Your task to perform on an android device: Play the last video I watched on Youtube Image 0: 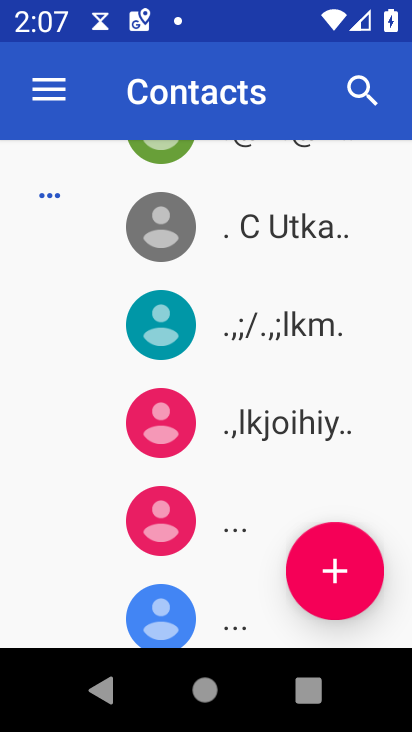
Step 0: press home button
Your task to perform on an android device: Play the last video I watched on Youtube Image 1: 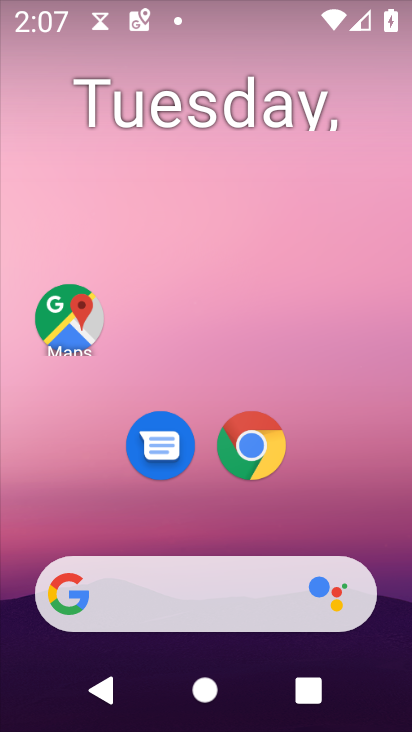
Step 1: drag from (206, 609) to (340, 142)
Your task to perform on an android device: Play the last video I watched on Youtube Image 2: 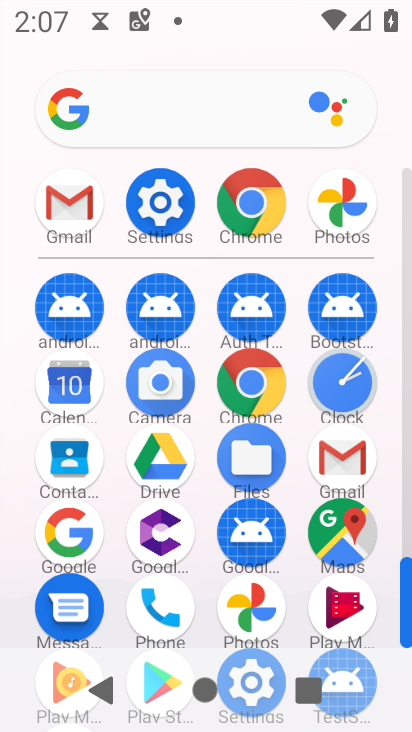
Step 2: drag from (314, 618) to (324, 285)
Your task to perform on an android device: Play the last video I watched on Youtube Image 3: 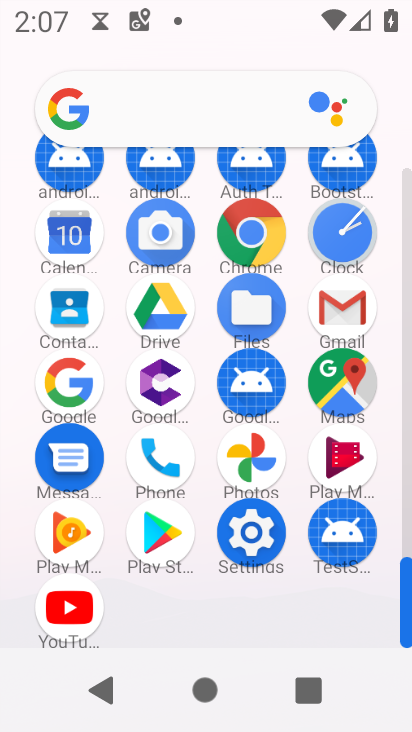
Step 3: click (80, 609)
Your task to perform on an android device: Play the last video I watched on Youtube Image 4: 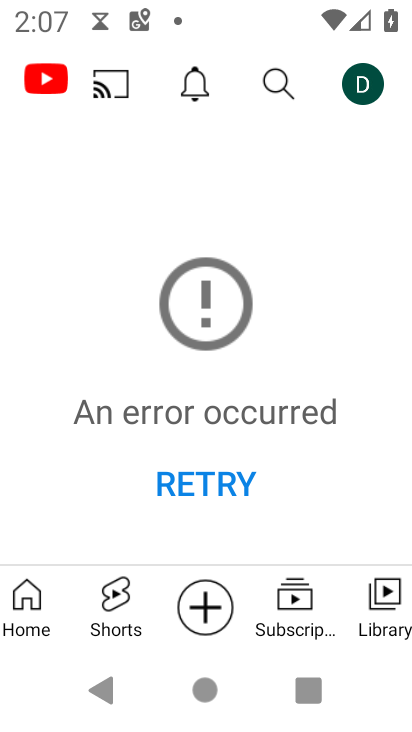
Step 4: click (390, 613)
Your task to perform on an android device: Play the last video I watched on Youtube Image 5: 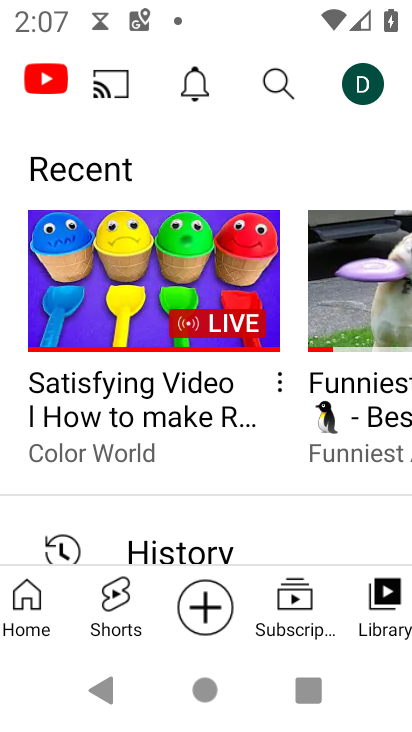
Step 5: click (128, 290)
Your task to perform on an android device: Play the last video I watched on Youtube Image 6: 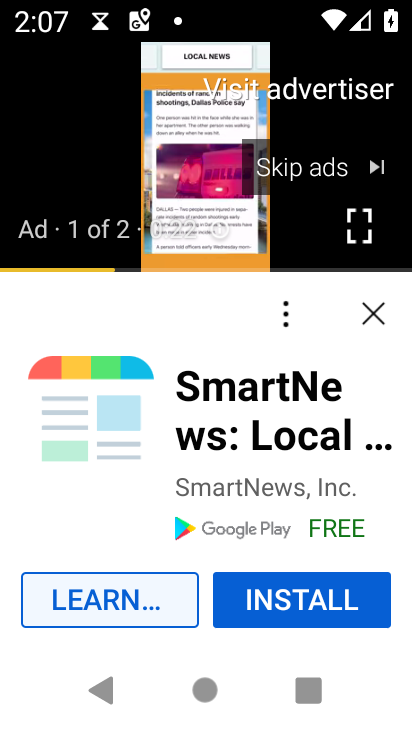
Step 6: click (371, 177)
Your task to perform on an android device: Play the last video I watched on Youtube Image 7: 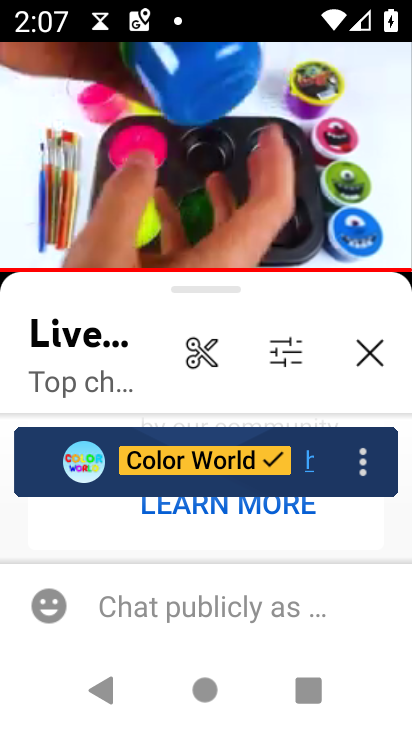
Step 7: click (285, 175)
Your task to perform on an android device: Play the last video I watched on Youtube Image 8: 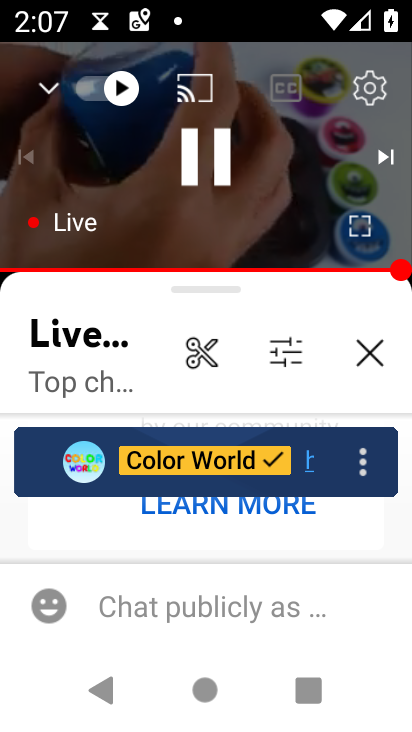
Step 8: click (191, 142)
Your task to perform on an android device: Play the last video I watched on Youtube Image 9: 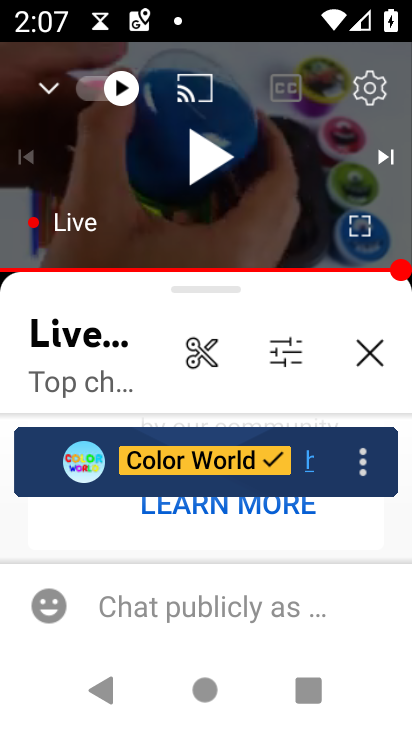
Step 9: task complete